Your task to perform on an android device: What's the weather going to be tomorrow? Image 0: 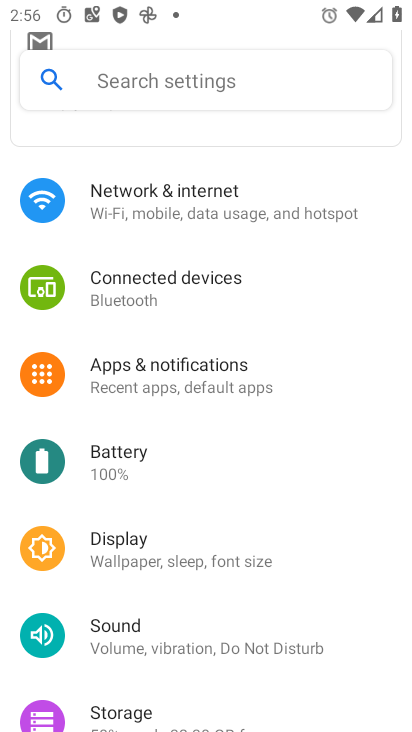
Step 0: press home button
Your task to perform on an android device: What's the weather going to be tomorrow? Image 1: 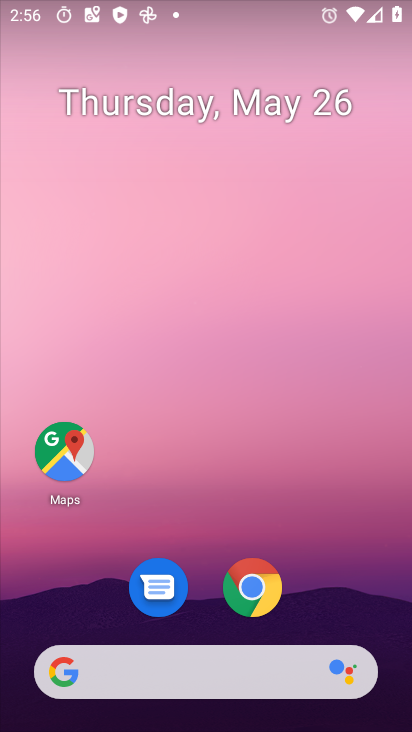
Step 1: click (229, 674)
Your task to perform on an android device: What's the weather going to be tomorrow? Image 2: 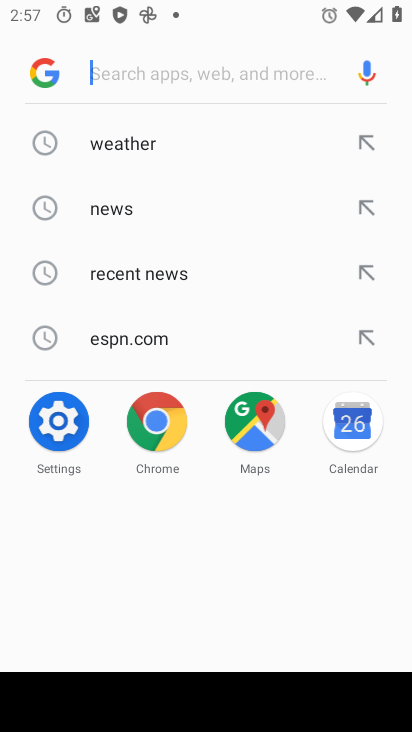
Step 2: click (139, 149)
Your task to perform on an android device: What's the weather going to be tomorrow? Image 3: 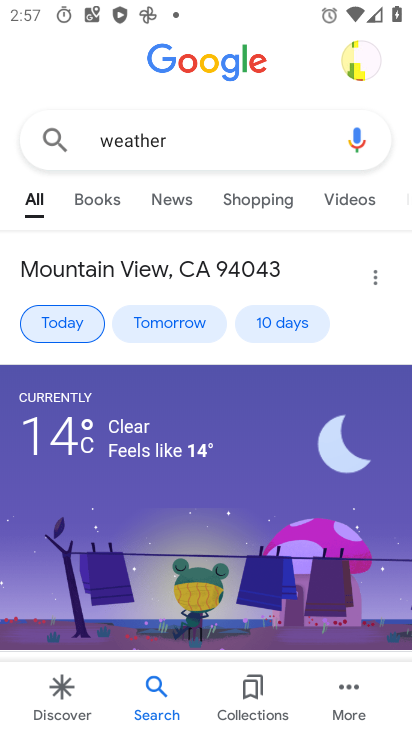
Step 3: click (187, 326)
Your task to perform on an android device: What's the weather going to be tomorrow? Image 4: 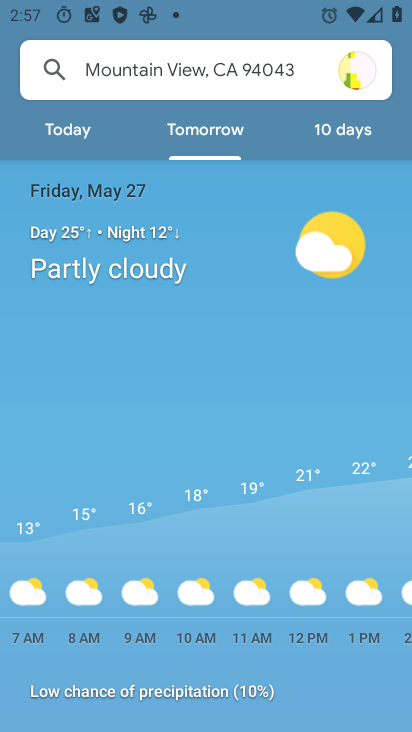
Step 4: task complete